Your task to perform on an android device: What's on my calendar tomorrow? Image 0: 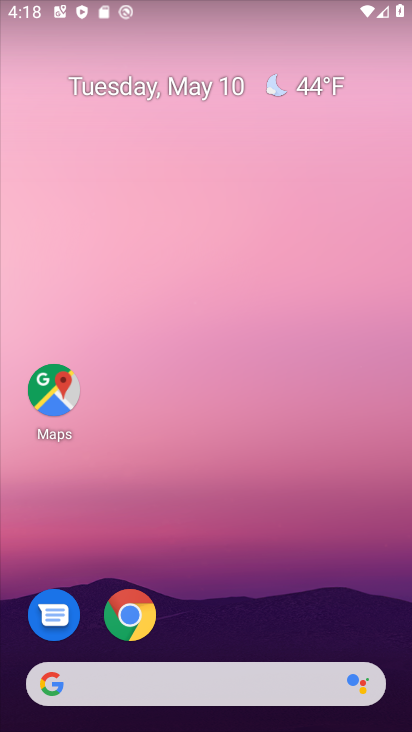
Step 0: drag from (205, 729) to (207, 60)
Your task to perform on an android device: What's on my calendar tomorrow? Image 1: 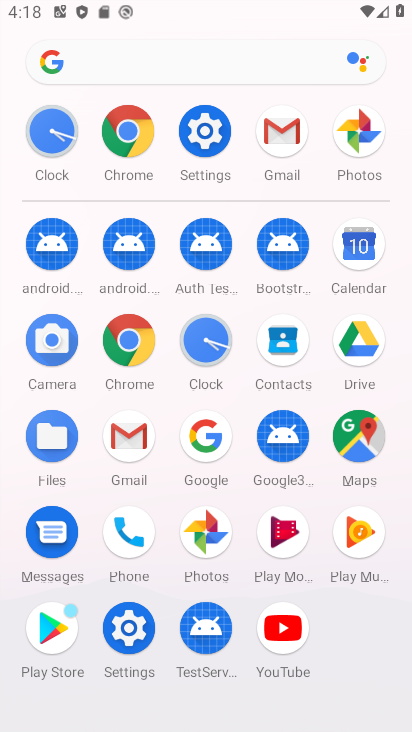
Step 1: click (355, 246)
Your task to perform on an android device: What's on my calendar tomorrow? Image 2: 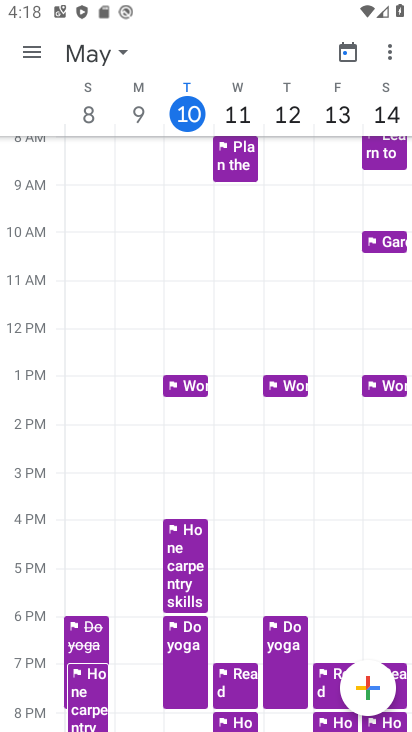
Step 2: click (237, 110)
Your task to perform on an android device: What's on my calendar tomorrow? Image 3: 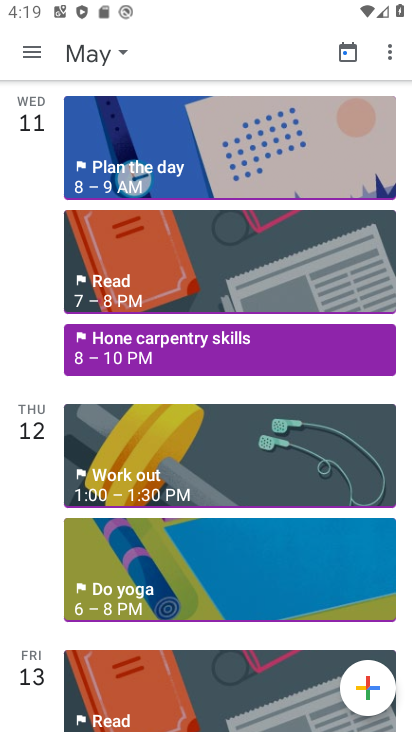
Step 3: task complete